Your task to perform on an android device: allow notifications from all sites in the chrome app Image 0: 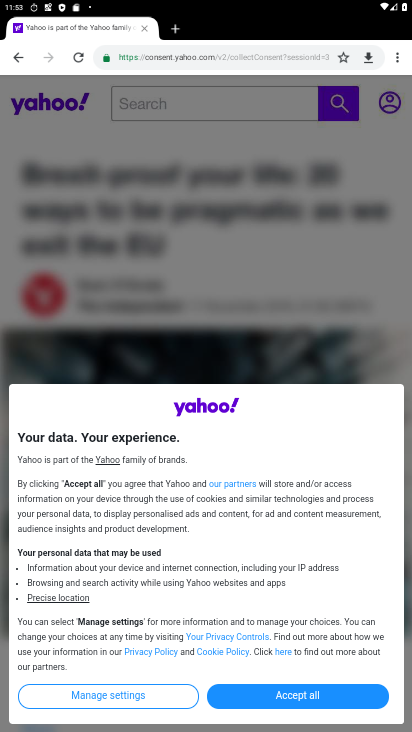
Step 0: press home button
Your task to perform on an android device: allow notifications from all sites in the chrome app Image 1: 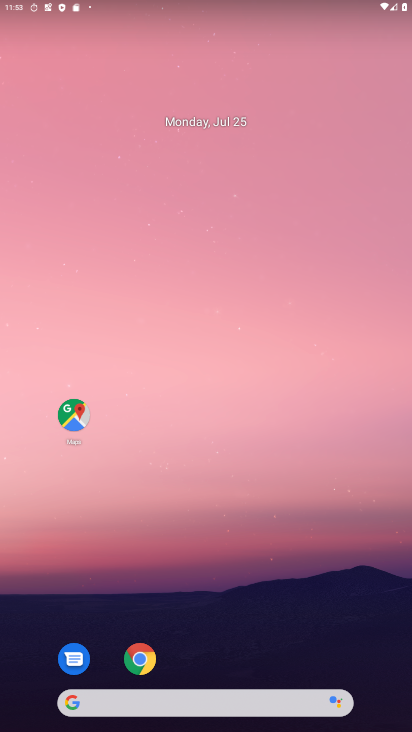
Step 1: drag from (189, 647) to (227, 158)
Your task to perform on an android device: allow notifications from all sites in the chrome app Image 2: 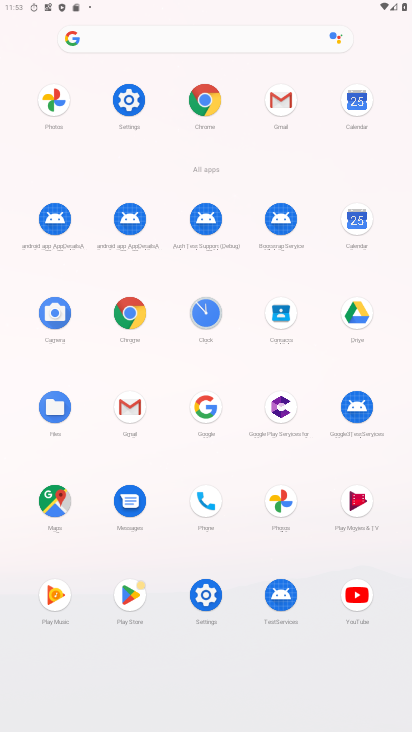
Step 2: click (207, 119)
Your task to perform on an android device: allow notifications from all sites in the chrome app Image 3: 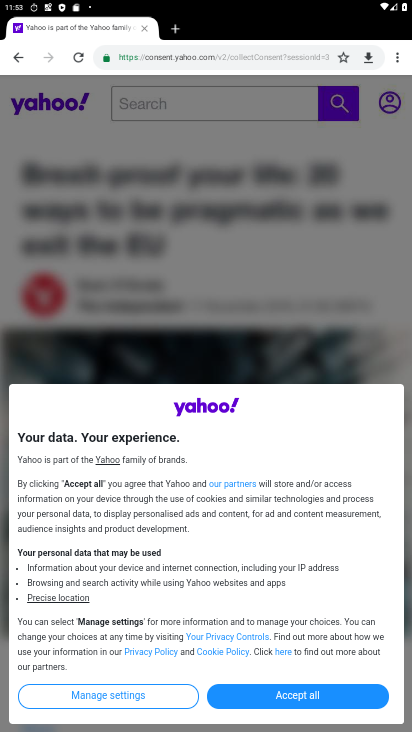
Step 3: click (399, 58)
Your task to perform on an android device: allow notifications from all sites in the chrome app Image 4: 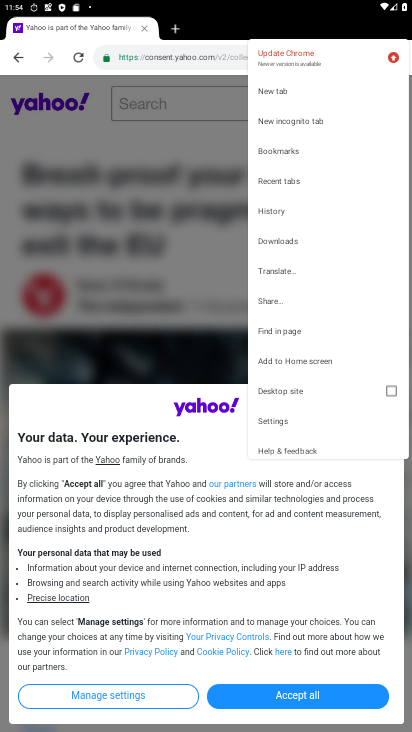
Step 4: click (279, 420)
Your task to perform on an android device: allow notifications from all sites in the chrome app Image 5: 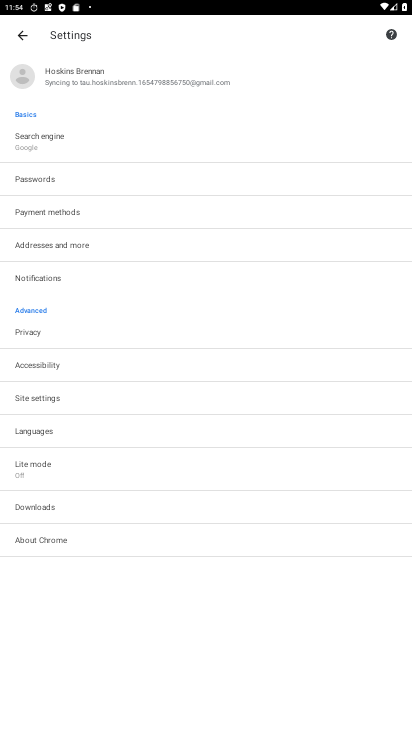
Step 5: click (46, 276)
Your task to perform on an android device: allow notifications from all sites in the chrome app Image 6: 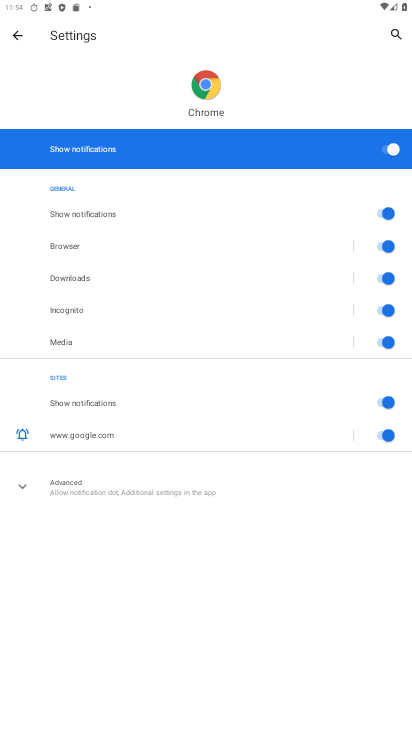
Step 6: task complete